Your task to perform on an android device: Is it going to rain tomorrow? Image 0: 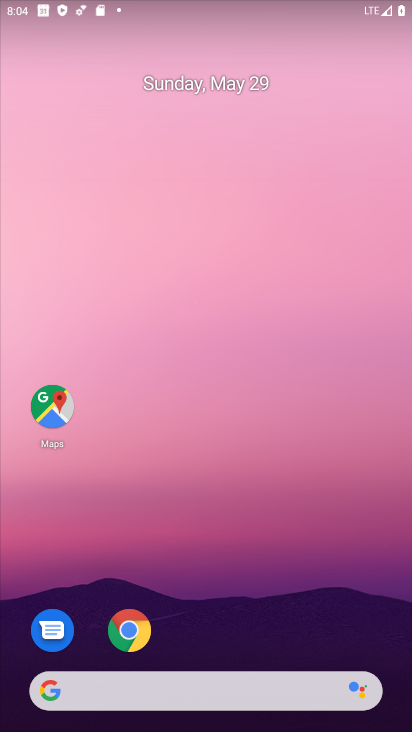
Step 0: drag from (197, 664) to (127, 92)
Your task to perform on an android device: Is it going to rain tomorrow? Image 1: 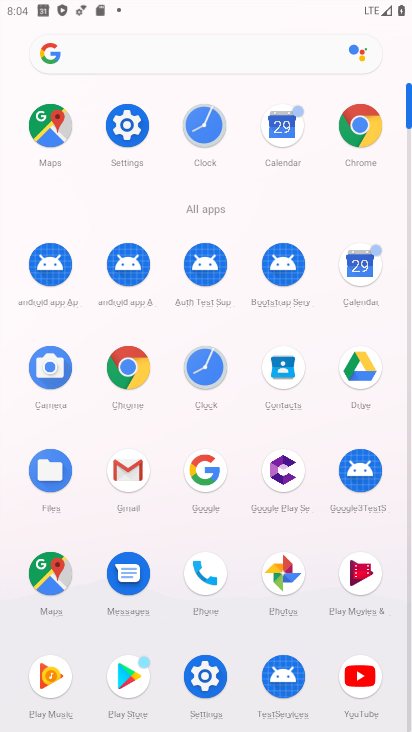
Step 1: click (368, 260)
Your task to perform on an android device: Is it going to rain tomorrow? Image 2: 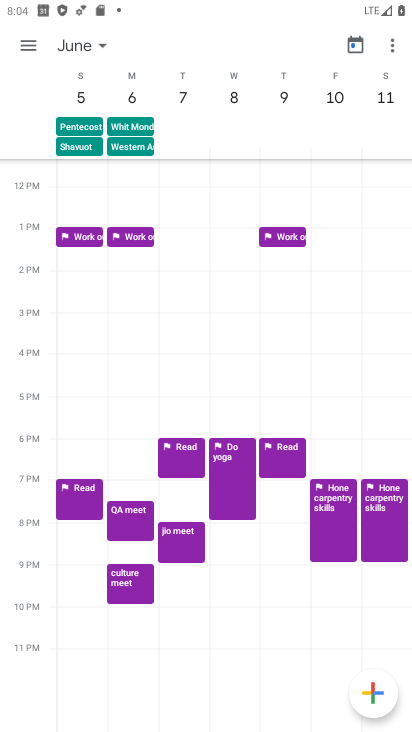
Step 2: click (354, 43)
Your task to perform on an android device: Is it going to rain tomorrow? Image 3: 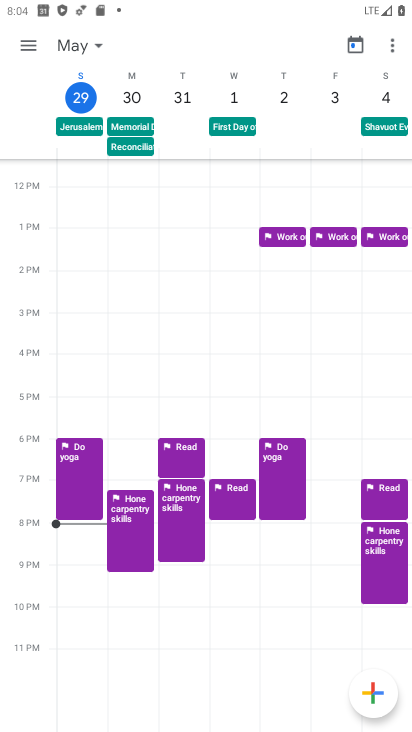
Step 3: click (137, 103)
Your task to perform on an android device: Is it going to rain tomorrow? Image 4: 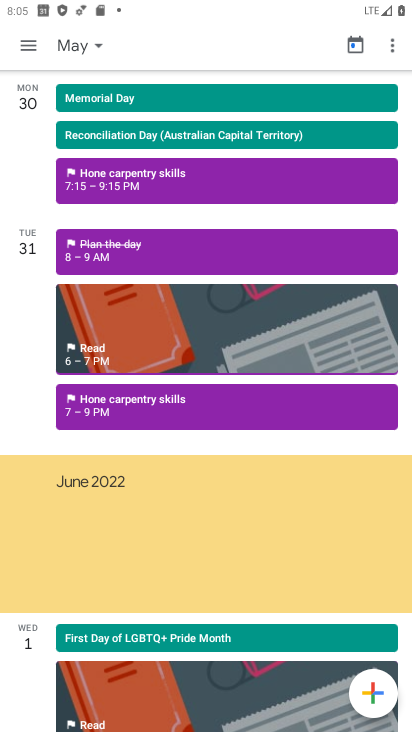
Step 4: task complete